Your task to perform on an android device: toggle priority inbox in the gmail app Image 0: 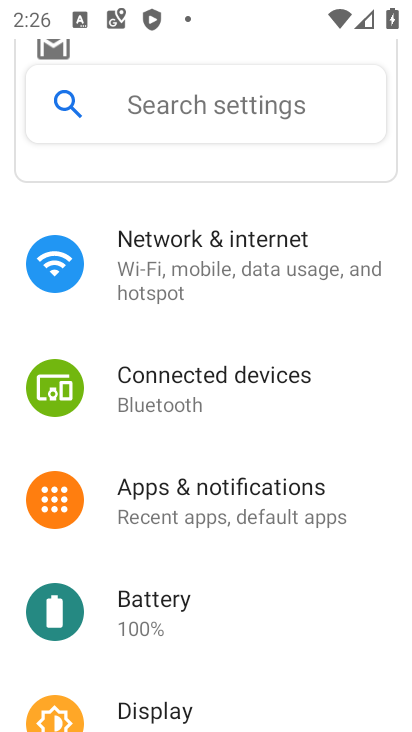
Step 0: press home button
Your task to perform on an android device: toggle priority inbox in the gmail app Image 1: 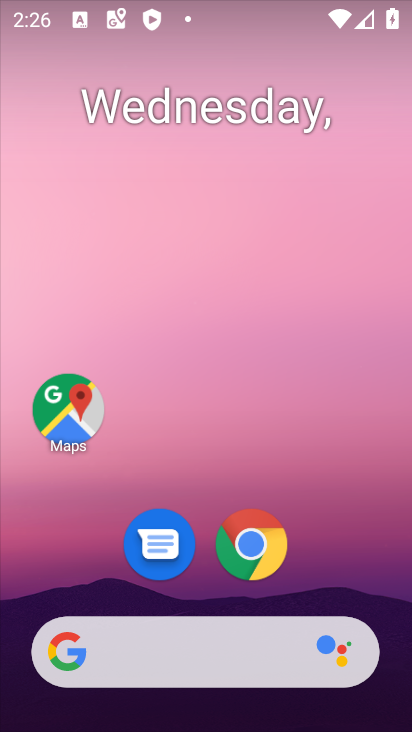
Step 1: drag from (393, 643) to (297, 213)
Your task to perform on an android device: toggle priority inbox in the gmail app Image 2: 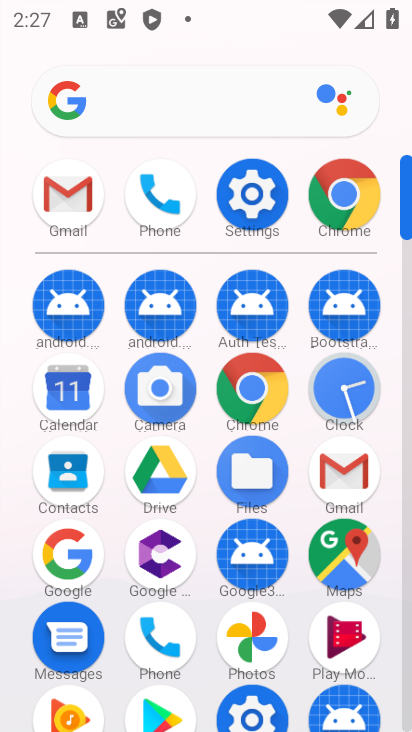
Step 2: click (408, 704)
Your task to perform on an android device: toggle priority inbox in the gmail app Image 3: 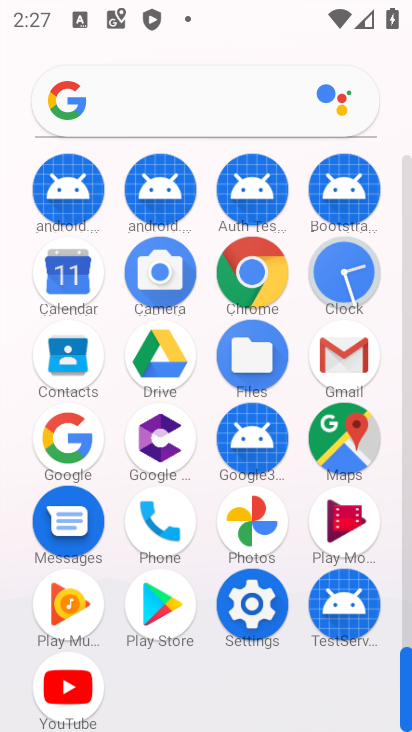
Step 3: click (340, 353)
Your task to perform on an android device: toggle priority inbox in the gmail app Image 4: 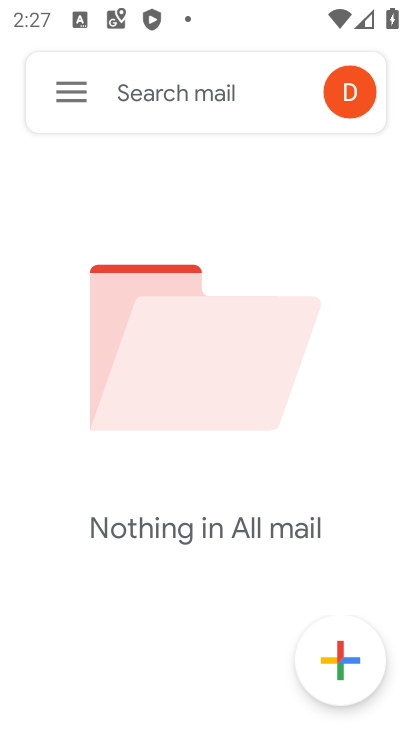
Step 4: click (56, 94)
Your task to perform on an android device: toggle priority inbox in the gmail app Image 5: 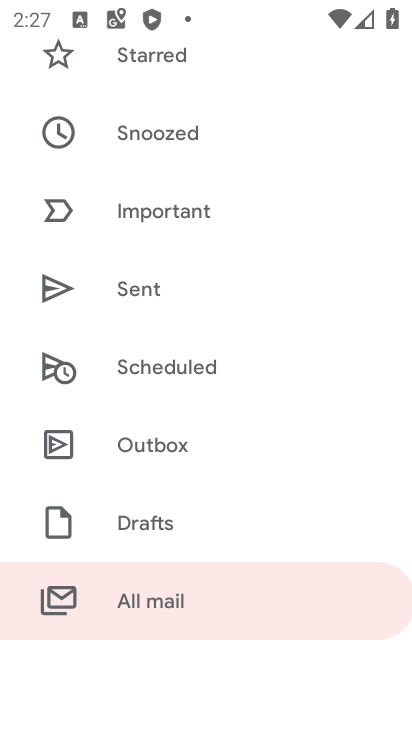
Step 5: drag from (213, 612) to (240, 171)
Your task to perform on an android device: toggle priority inbox in the gmail app Image 6: 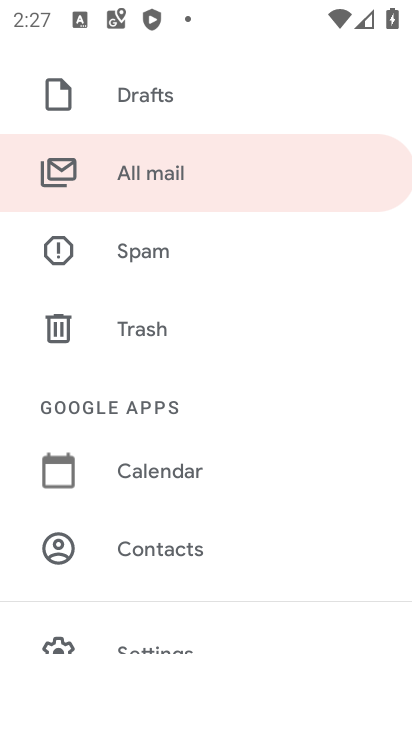
Step 6: drag from (255, 550) to (222, 174)
Your task to perform on an android device: toggle priority inbox in the gmail app Image 7: 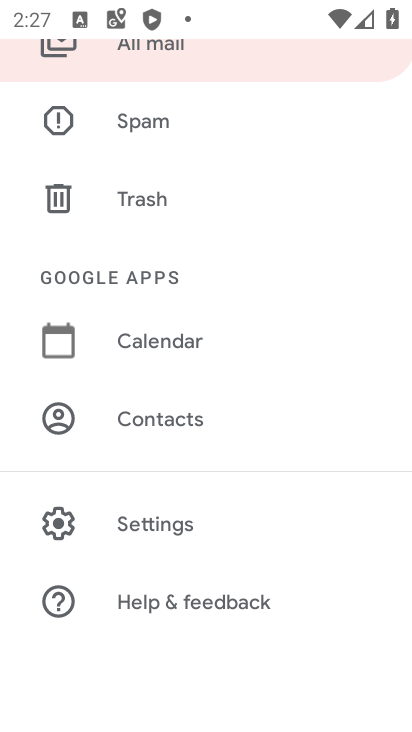
Step 7: click (143, 527)
Your task to perform on an android device: toggle priority inbox in the gmail app Image 8: 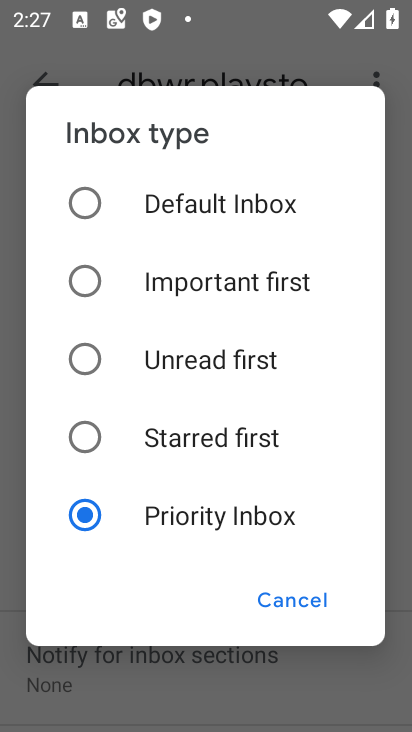
Step 8: click (81, 204)
Your task to perform on an android device: toggle priority inbox in the gmail app Image 9: 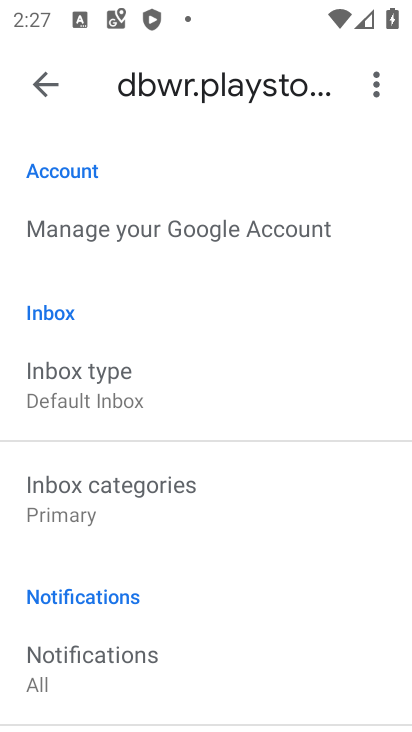
Step 9: task complete